Your task to perform on an android device: open wifi settings Image 0: 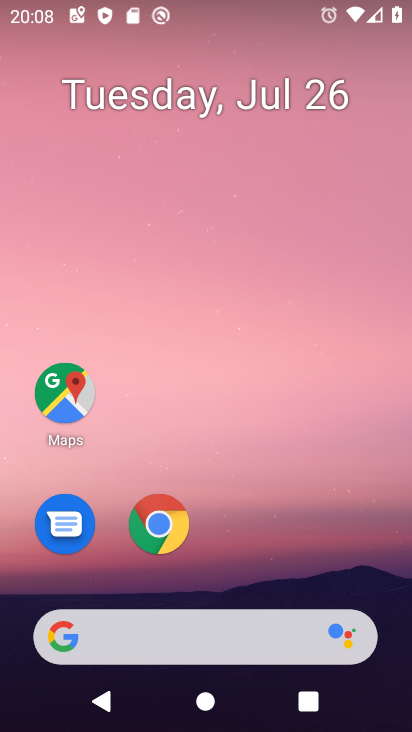
Step 0: drag from (287, 536) to (259, 151)
Your task to perform on an android device: open wifi settings Image 1: 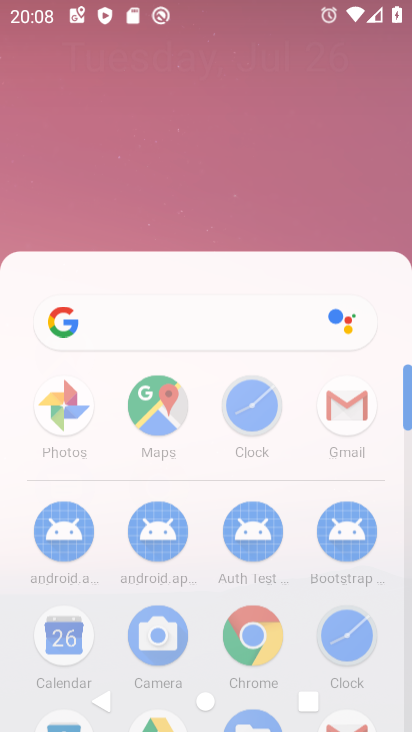
Step 1: click (277, 45)
Your task to perform on an android device: open wifi settings Image 2: 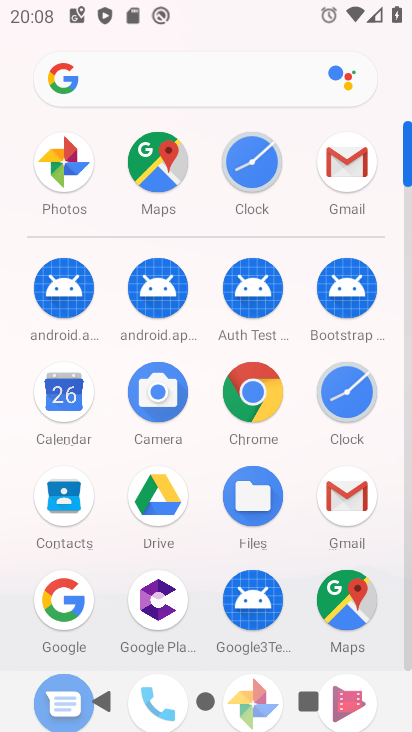
Step 2: drag from (212, 453) to (241, 143)
Your task to perform on an android device: open wifi settings Image 3: 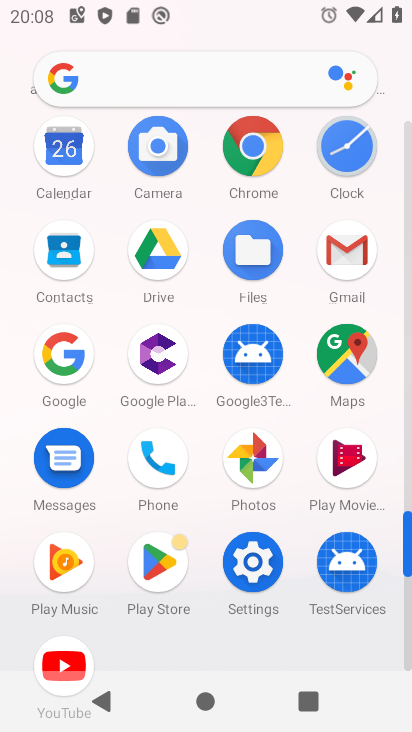
Step 3: click (258, 556)
Your task to perform on an android device: open wifi settings Image 4: 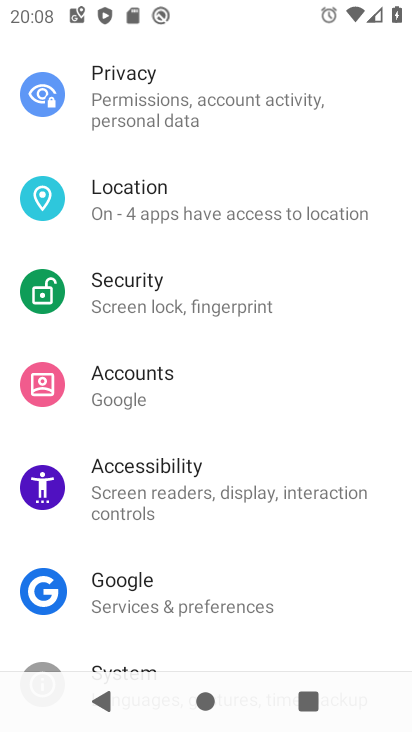
Step 4: drag from (237, 242) to (287, 597)
Your task to perform on an android device: open wifi settings Image 5: 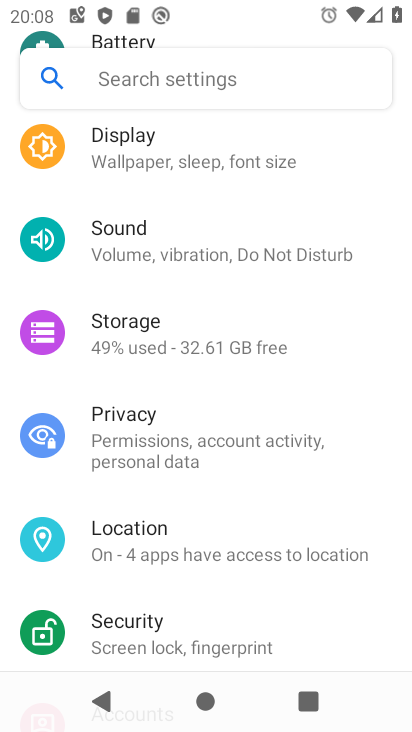
Step 5: drag from (191, 215) to (228, 522)
Your task to perform on an android device: open wifi settings Image 6: 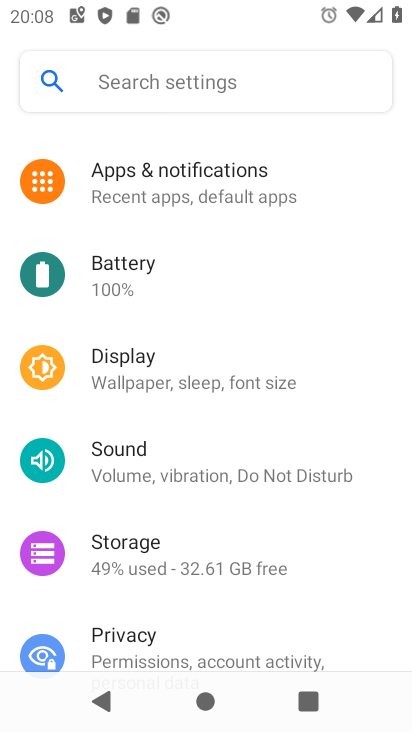
Step 6: drag from (265, 299) to (265, 664)
Your task to perform on an android device: open wifi settings Image 7: 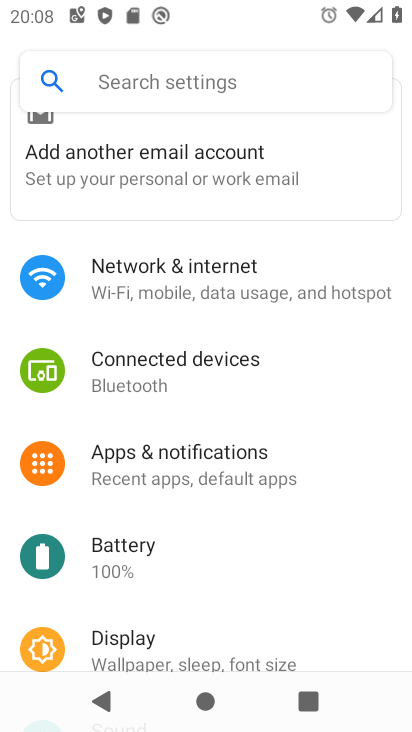
Step 7: click (227, 289)
Your task to perform on an android device: open wifi settings Image 8: 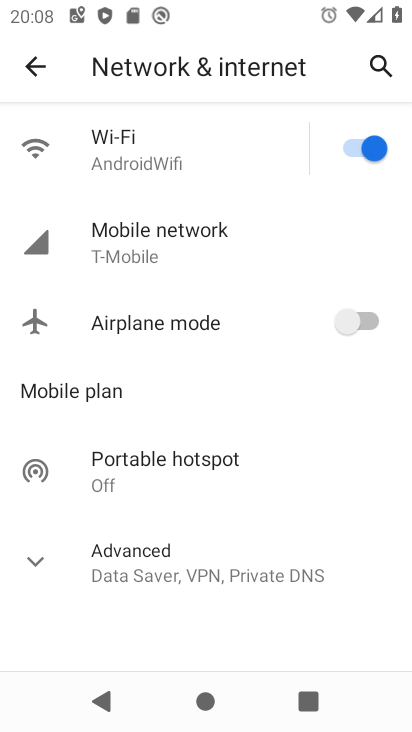
Step 8: click (130, 140)
Your task to perform on an android device: open wifi settings Image 9: 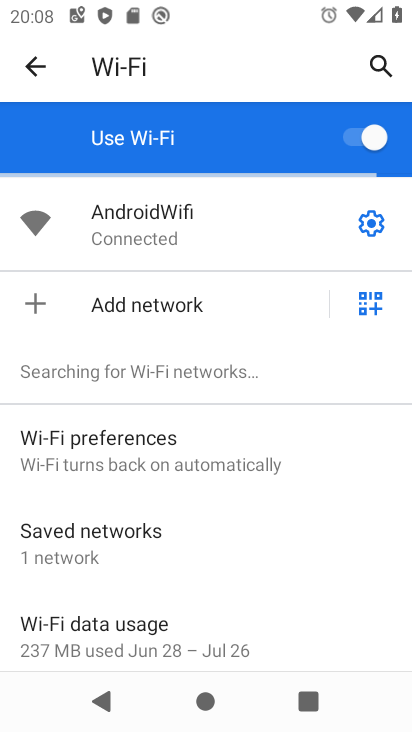
Step 9: task complete